Your task to perform on an android device: Open the calendar and show me this week's events? Image 0: 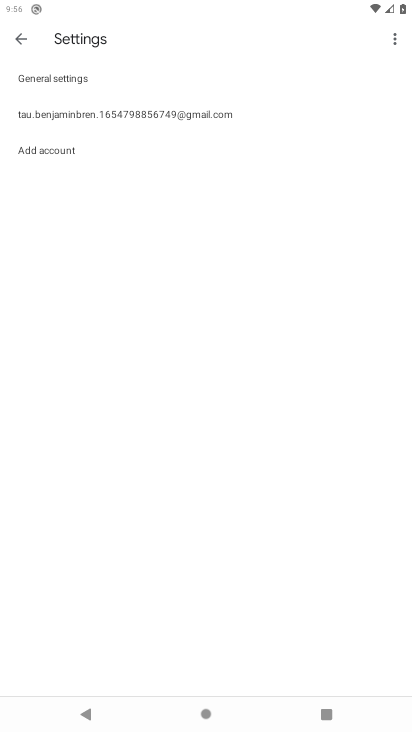
Step 0: press home button
Your task to perform on an android device: Open the calendar and show me this week's events? Image 1: 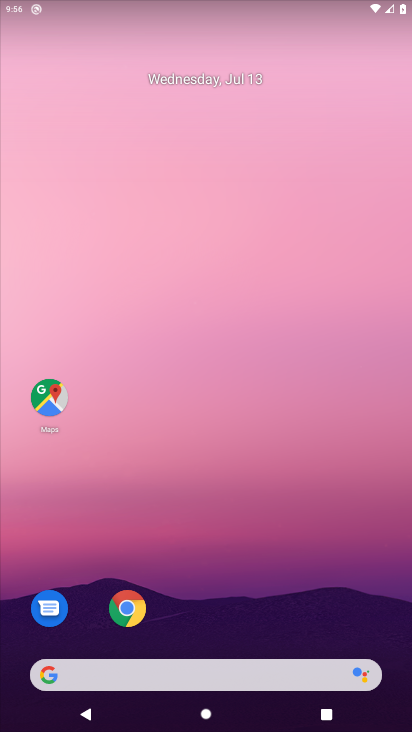
Step 1: drag from (25, 697) to (210, 123)
Your task to perform on an android device: Open the calendar and show me this week's events? Image 2: 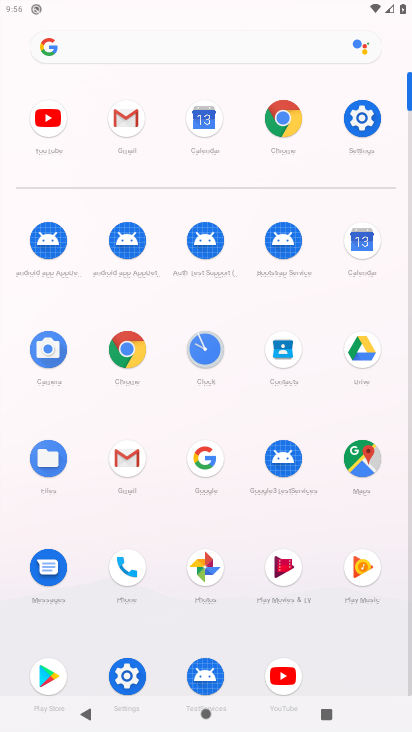
Step 2: click (355, 243)
Your task to perform on an android device: Open the calendar and show me this week's events? Image 3: 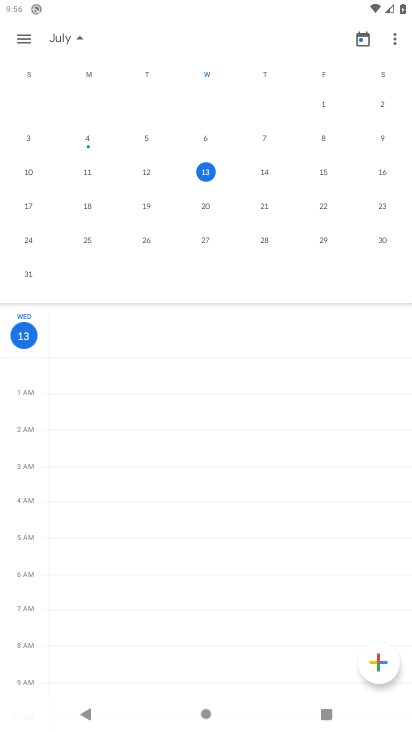
Step 3: task complete